Your task to perform on an android device: check google app version Image 0: 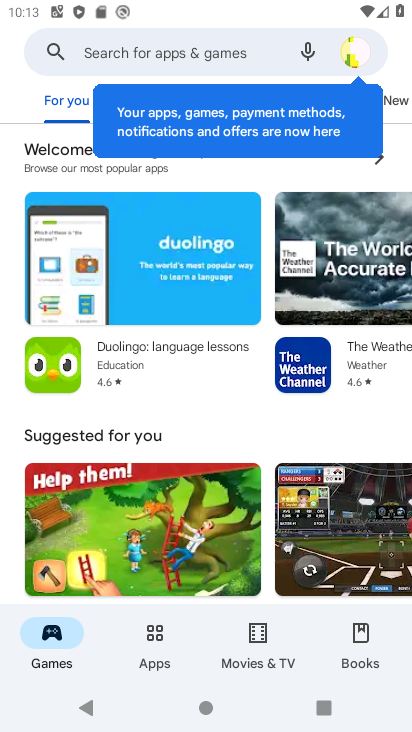
Step 0: press back button
Your task to perform on an android device: check google app version Image 1: 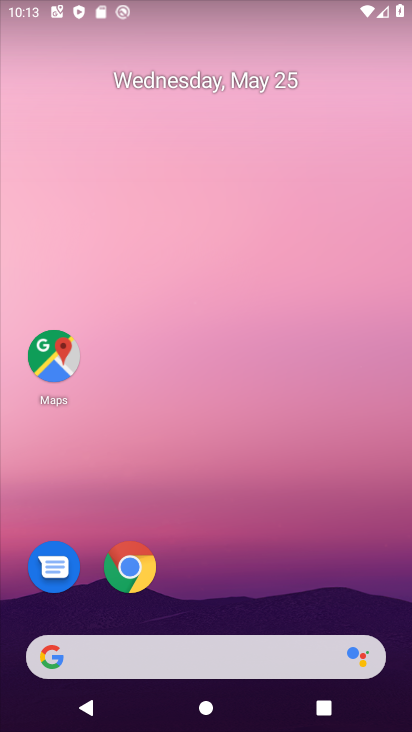
Step 1: drag from (286, 580) to (102, 48)
Your task to perform on an android device: check google app version Image 2: 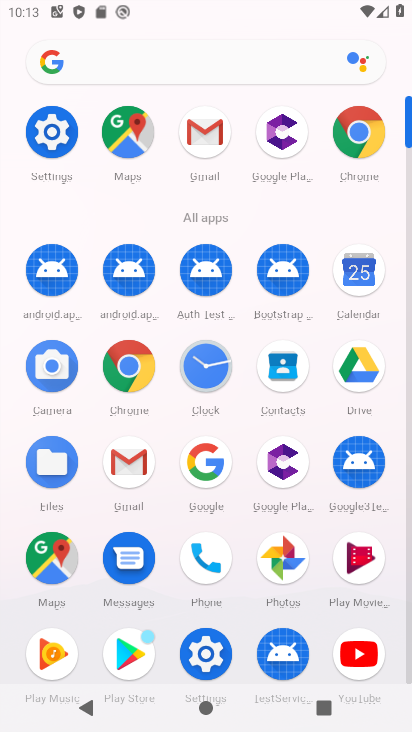
Step 2: click (200, 483)
Your task to perform on an android device: check google app version Image 3: 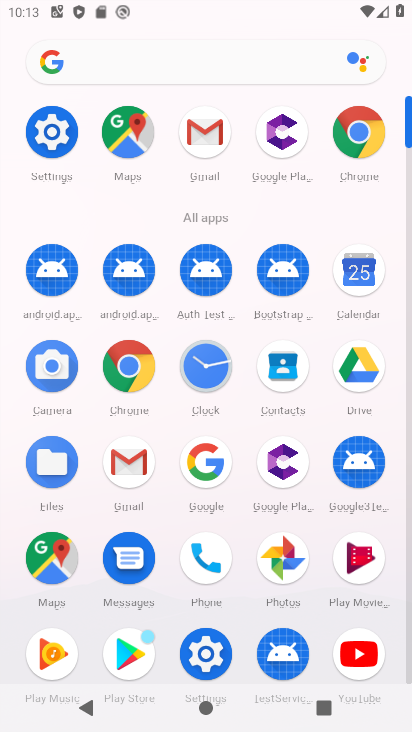
Step 3: click (206, 470)
Your task to perform on an android device: check google app version Image 4: 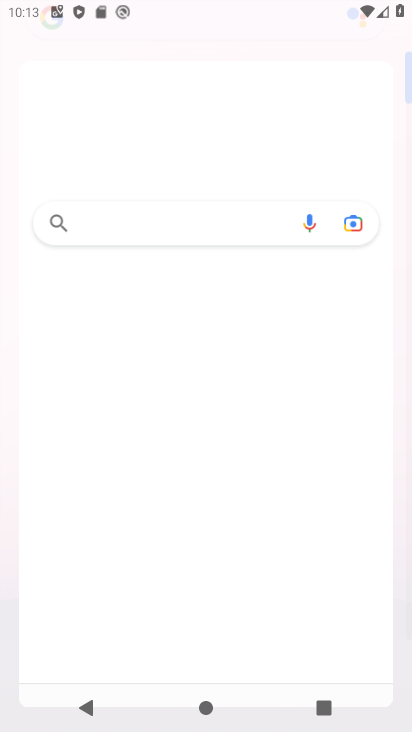
Step 4: click (173, 413)
Your task to perform on an android device: check google app version Image 5: 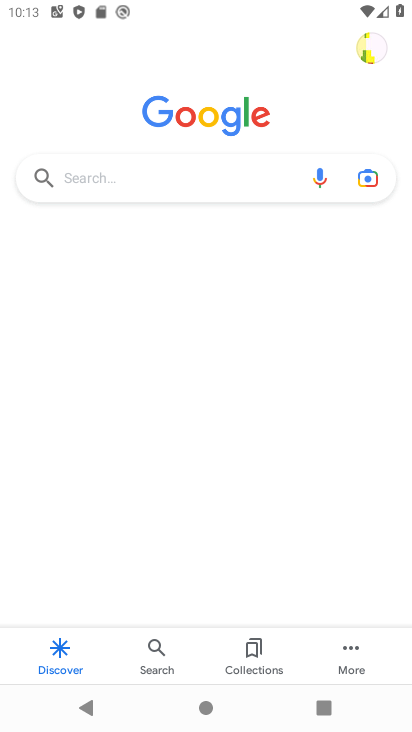
Step 5: click (205, 455)
Your task to perform on an android device: check google app version Image 6: 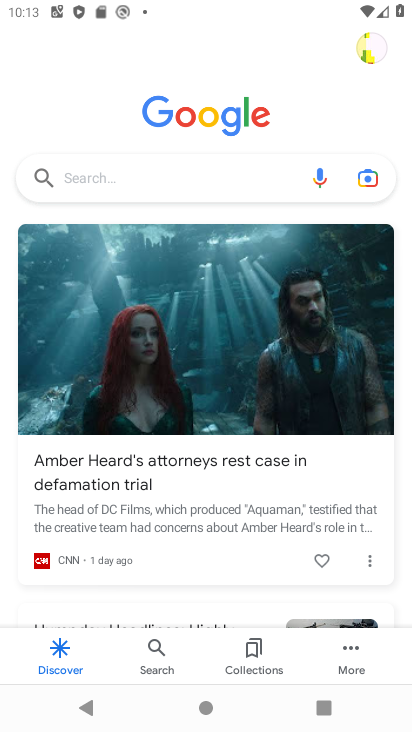
Step 6: click (343, 647)
Your task to perform on an android device: check google app version Image 7: 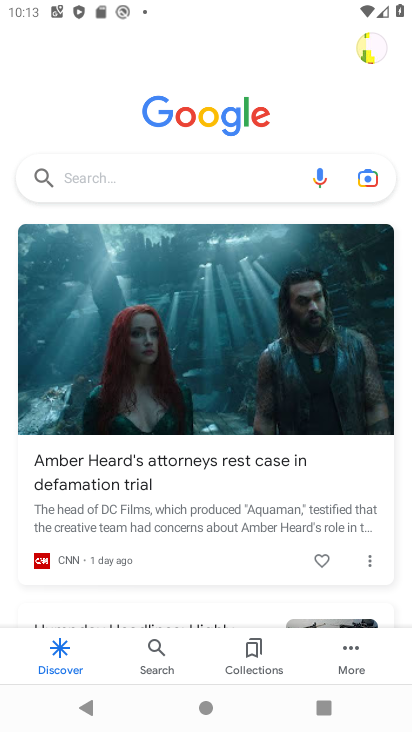
Step 7: click (344, 647)
Your task to perform on an android device: check google app version Image 8: 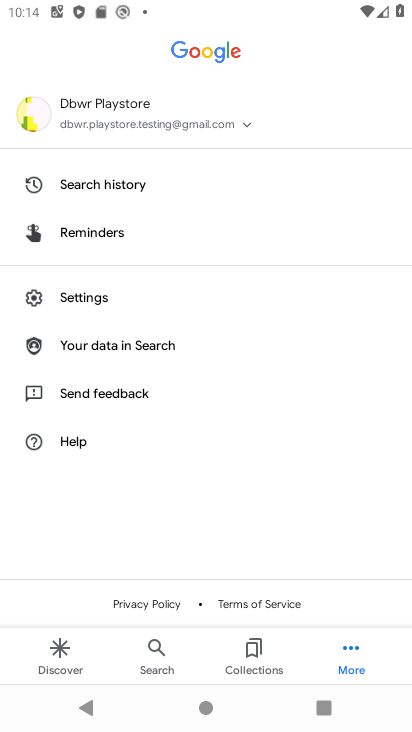
Step 8: click (84, 282)
Your task to perform on an android device: check google app version Image 9: 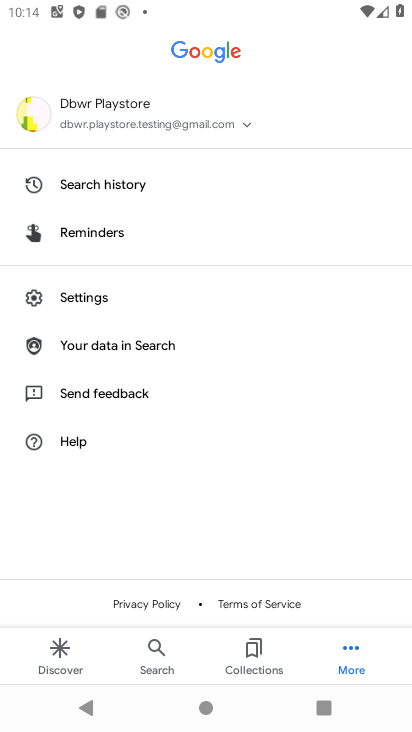
Step 9: click (85, 283)
Your task to perform on an android device: check google app version Image 10: 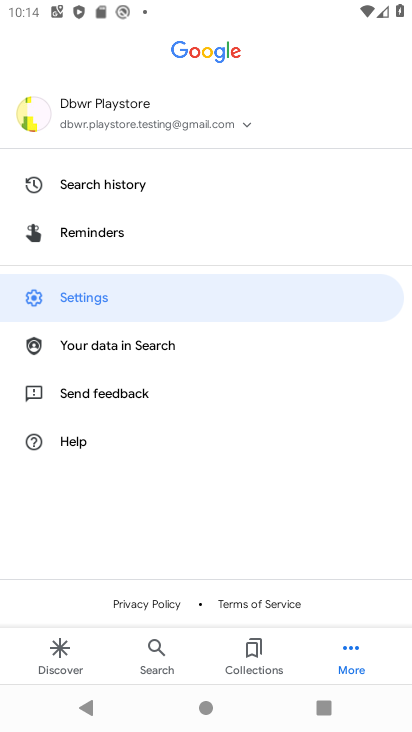
Step 10: click (86, 283)
Your task to perform on an android device: check google app version Image 11: 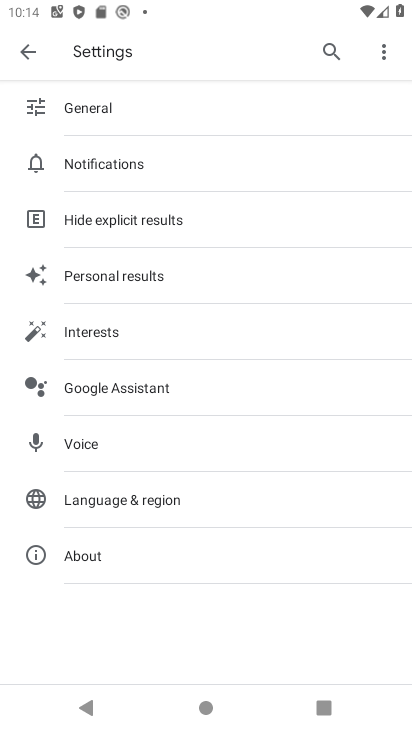
Step 11: click (82, 567)
Your task to perform on an android device: check google app version Image 12: 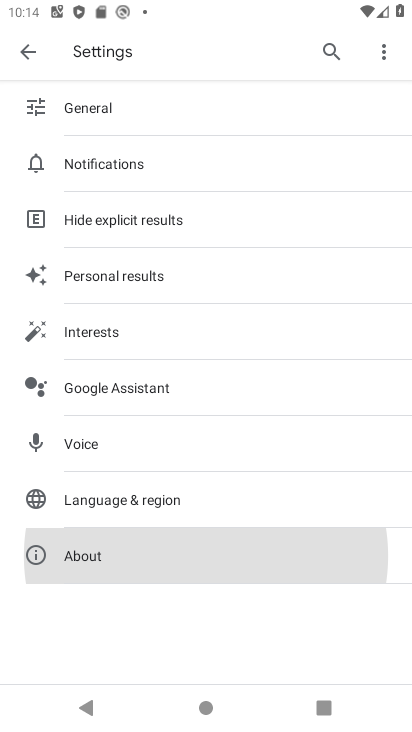
Step 12: click (82, 565)
Your task to perform on an android device: check google app version Image 13: 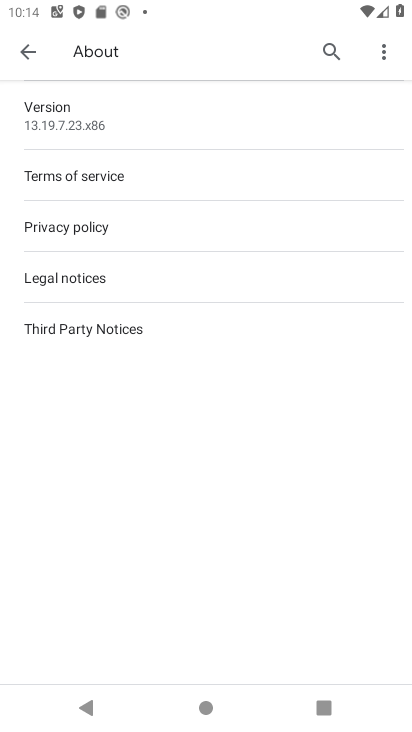
Step 13: task complete